Your task to perform on an android device: Search for Mexican restaurants on Maps Image 0: 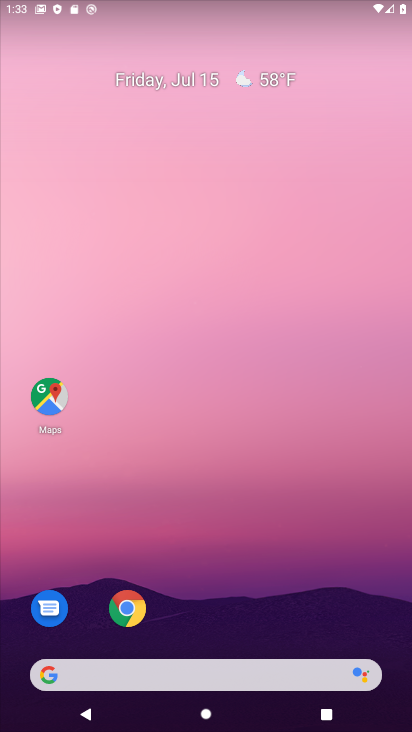
Step 0: drag from (264, 618) to (271, 172)
Your task to perform on an android device: Search for Mexican restaurants on Maps Image 1: 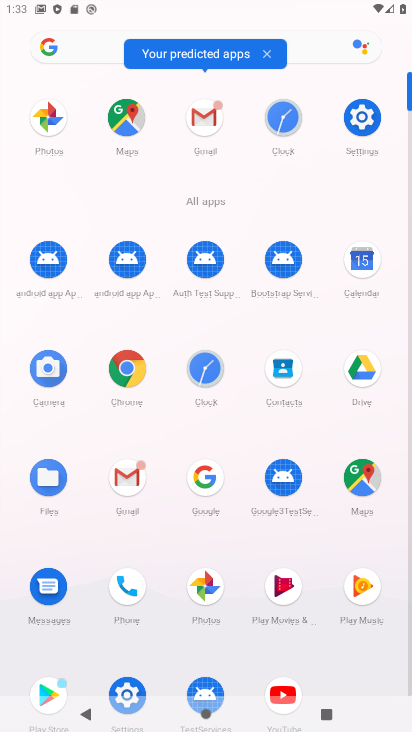
Step 1: click (366, 469)
Your task to perform on an android device: Search for Mexican restaurants on Maps Image 2: 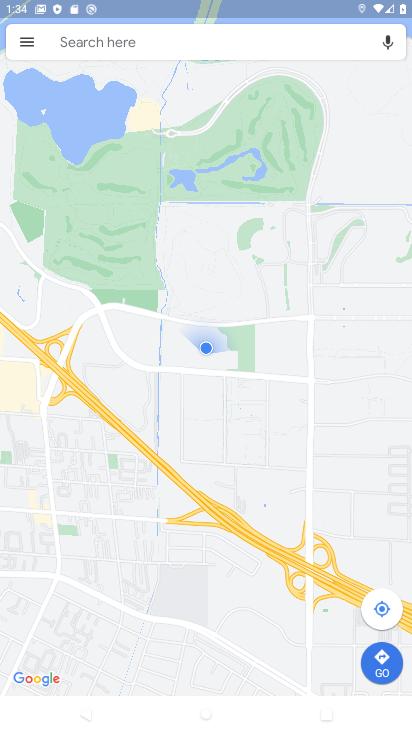
Step 2: click (151, 37)
Your task to perform on an android device: Search for Mexican restaurants on Maps Image 3: 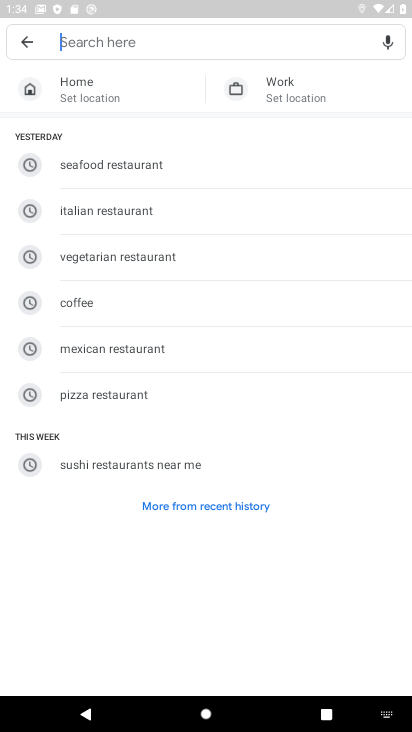
Step 3: type " Mexican restaurants "
Your task to perform on an android device: Search for Mexican restaurants on Maps Image 4: 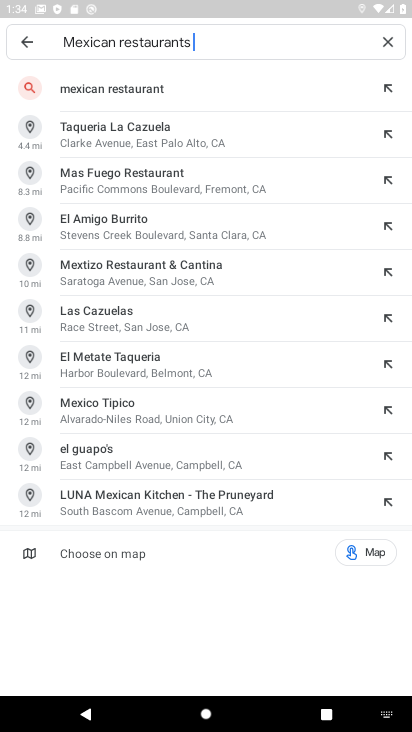
Step 4: click (104, 87)
Your task to perform on an android device: Search for Mexican restaurants on Maps Image 5: 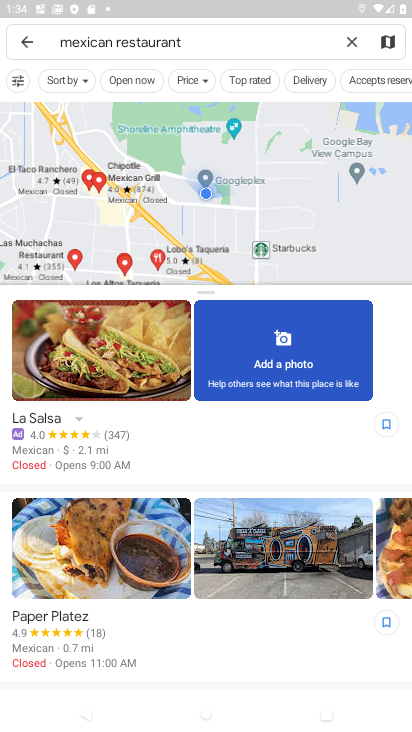
Step 5: task complete